Your task to perform on an android device: Check the news Image 0: 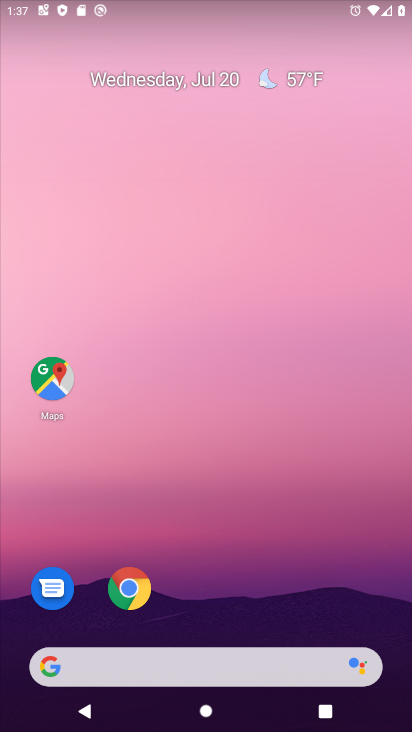
Step 0: click (202, 660)
Your task to perform on an android device: Check the news Image 1: 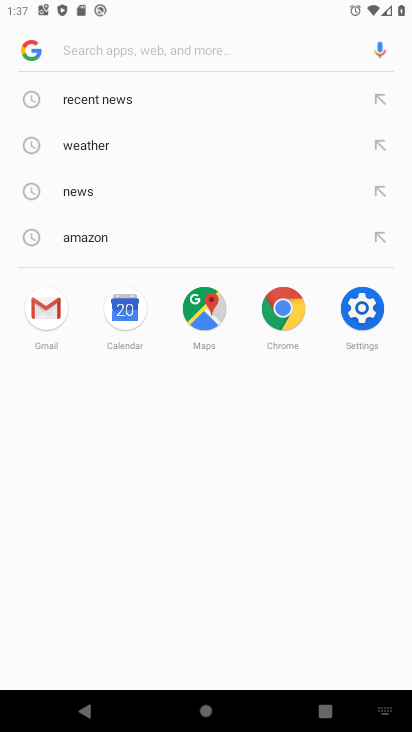
Step 1: click (82, 195)
Your task to perform on an android device: Check the news Image 2: 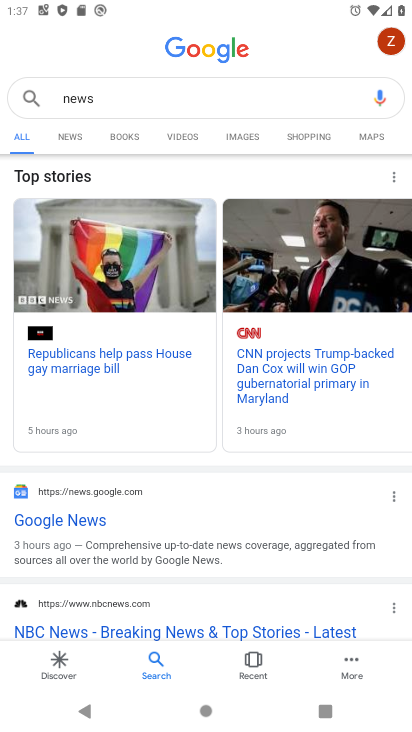
Step 2: task complete